Your task to perform on an android device: check the backup settings in the google photos Image 0: 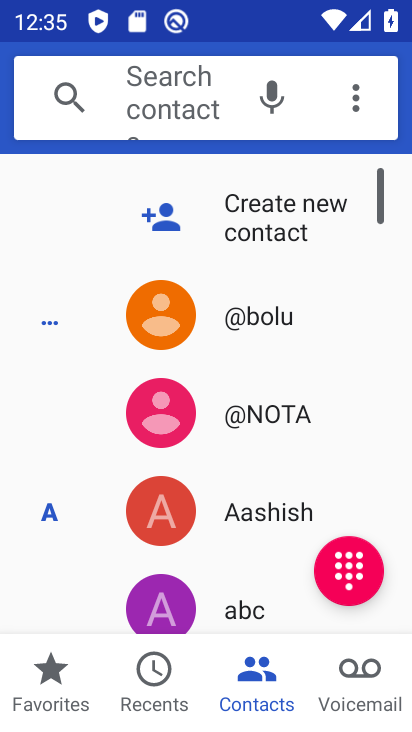
Step 0: press home button
Your task to perform on an android device: check the backup settings in the google photos Image 1: 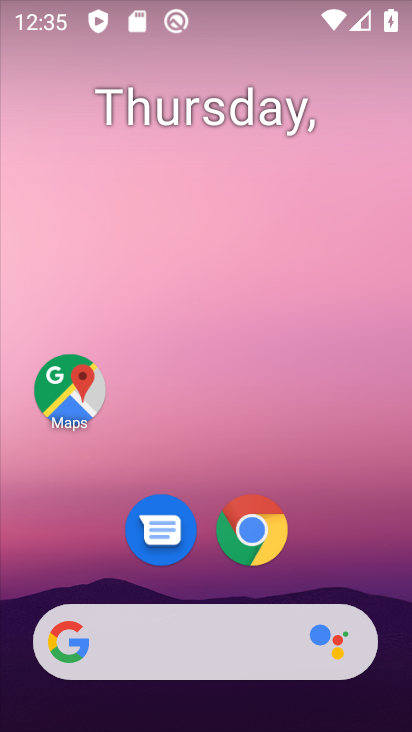
Step 1: drag from (209, 606) to (138, 34)
Your task to perform on an android device: check the backup settings in the google photos Image 2: 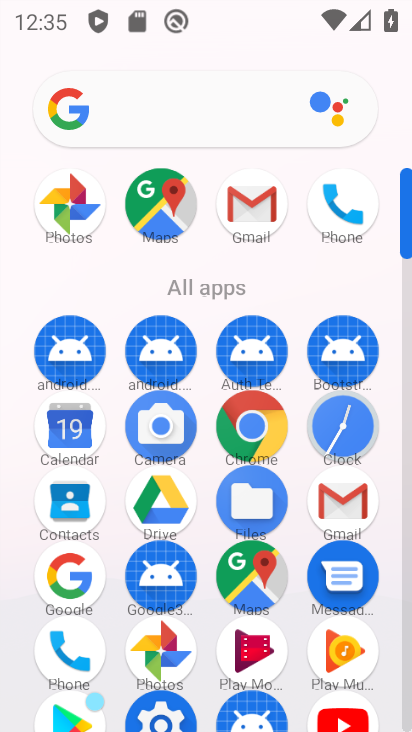
Step 2: click (174, 657)
Your task to perform on an android device: check the backup settings in the google photos Image 3: 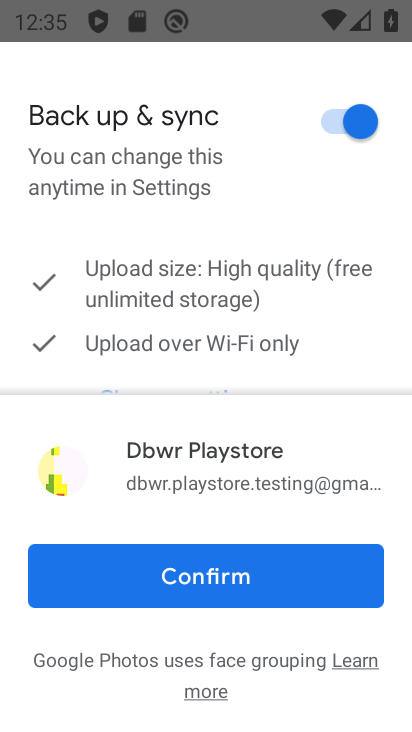
Step 3: drag from (132, 370) to (135, 223)
Your task to perform on an android device: check the backup settings in the google photos Image 4: 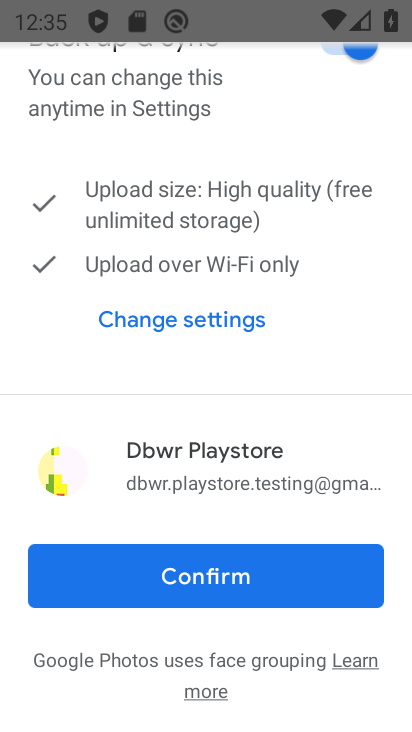
Step 4: click (158, 313)
Your task to perform on an android device: check the backup settings in the google photos Image 5: 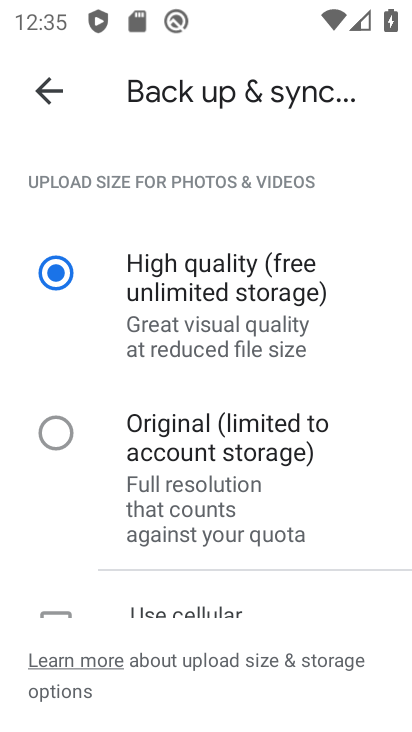
Step 5: drag from (174, 531) to (151, 96)
Your task to perform on an android device: check the backup settings in the google photos Image 6: 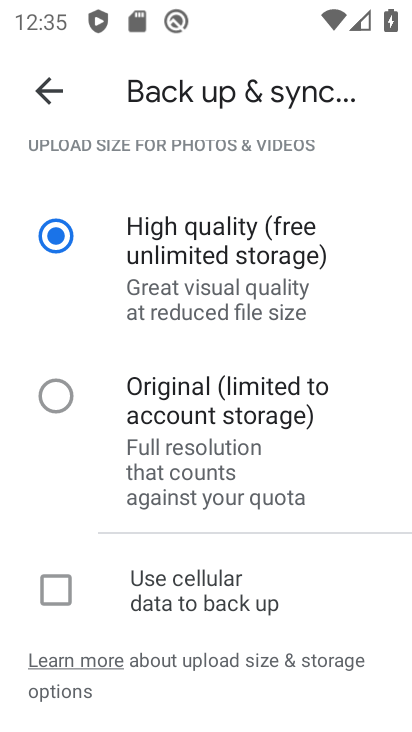
Step 6: click (67, 103)
Your task to perform on an android device: check the backup settings in the google photos Image 7: 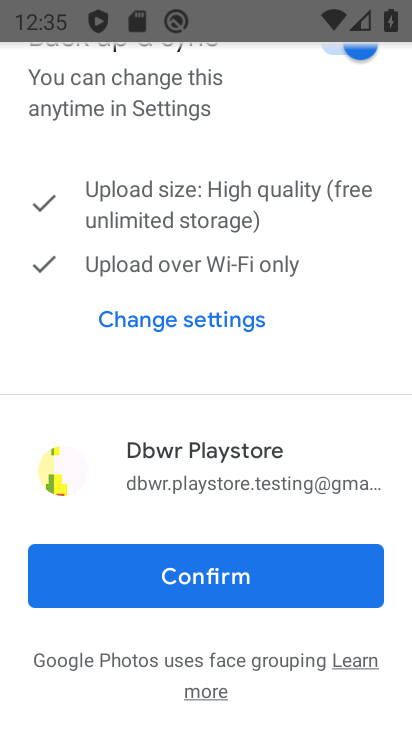
Step 7: task complete